Your task to perform on an android device: What is the news today? Image 0: 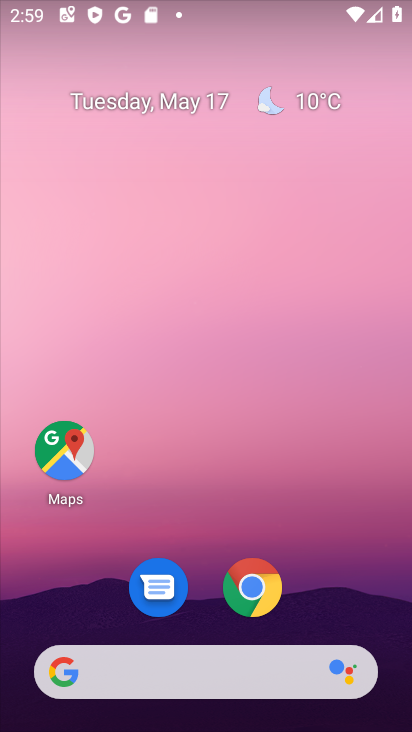
Step 0: drag from (324, 571) to (231, 63)
Your task to perform on an android device: What is the news today? Image 1: 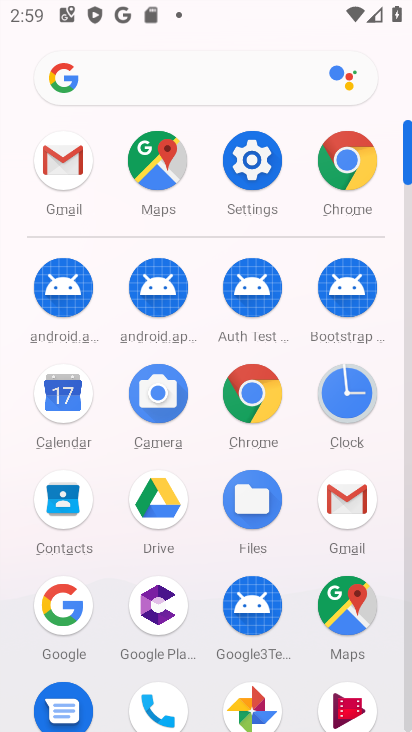
Step 1: drag from (17, 563) to (10, 226)
Your task to perform on an android device: What is the news today? Image 2: 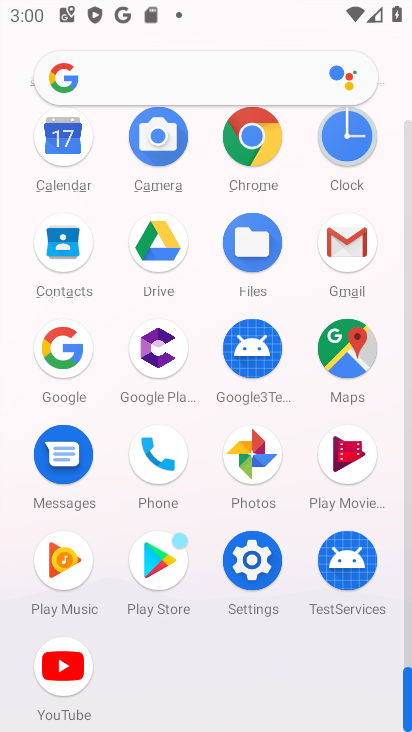
Step 2: click (255, 135)
Your task to perform on an android device: What is the news today? Image 3: 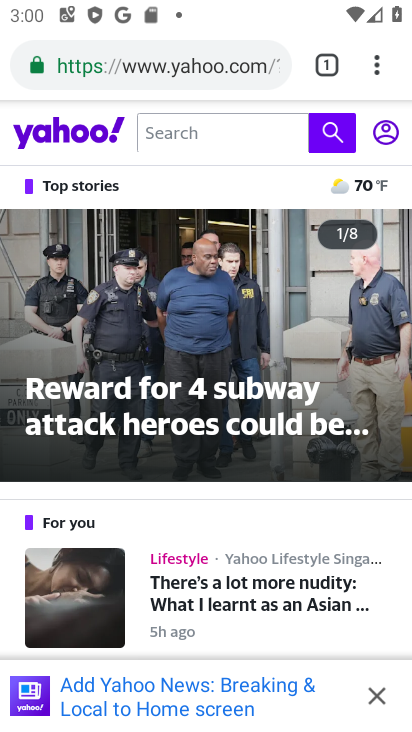
Step 3: click (181, 65)
Your task to perform on an android device: What is the news today? Image 4: 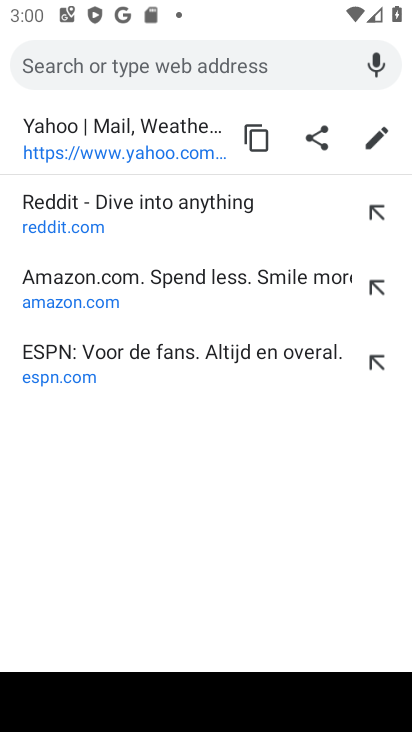
Step 4: type "What is the news today?"
Your task to perform on an android device: What is the news today? Image 5: 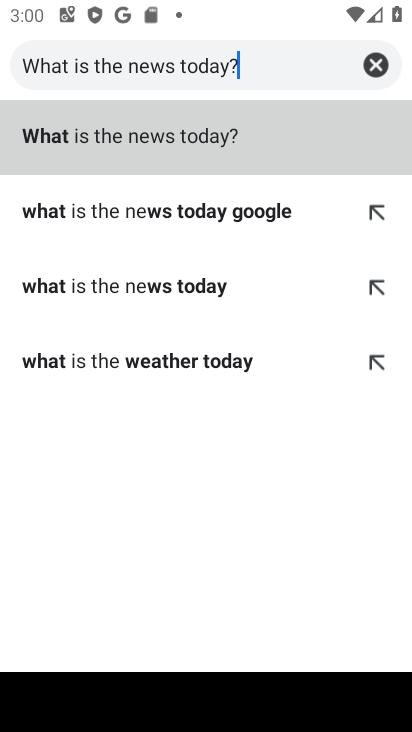
Step 5: type ""
Your task to perform on an android device: What is the news today? Image 6: 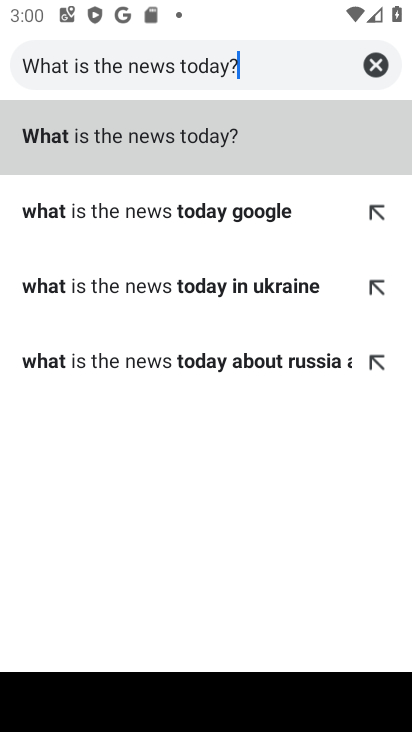
Step 6: click (238, 131)
Your task to perform on an android device: What is the news today? Image 7: 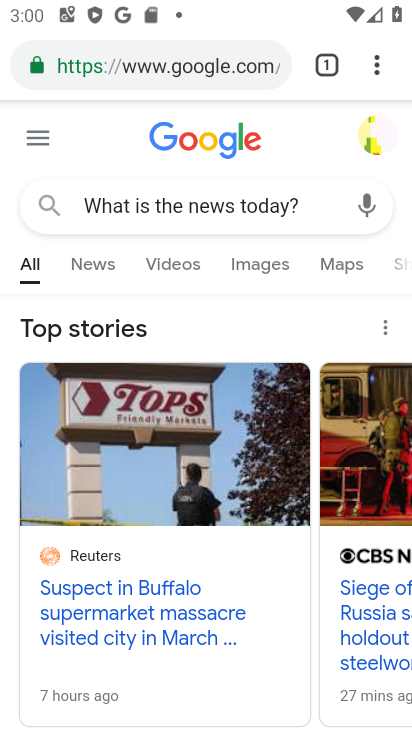
Step 7: task complete